Your task to perform on an android device: Open Yahoo.com Image 0: 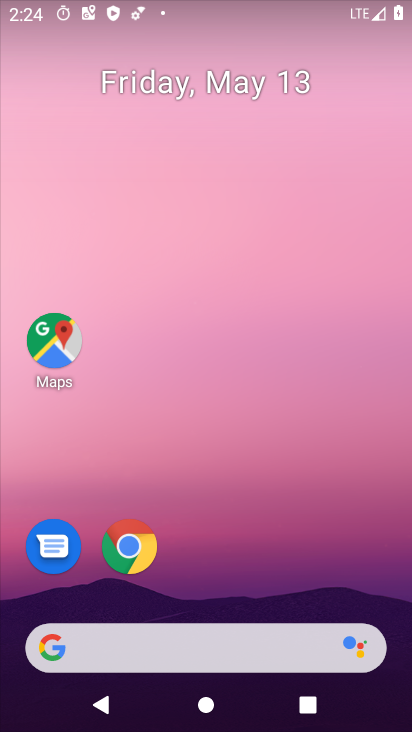
Step 0: drag from (218, 547) to (186, 72)
Your task to perform on an android device: Open Yahoo.com Image 1: 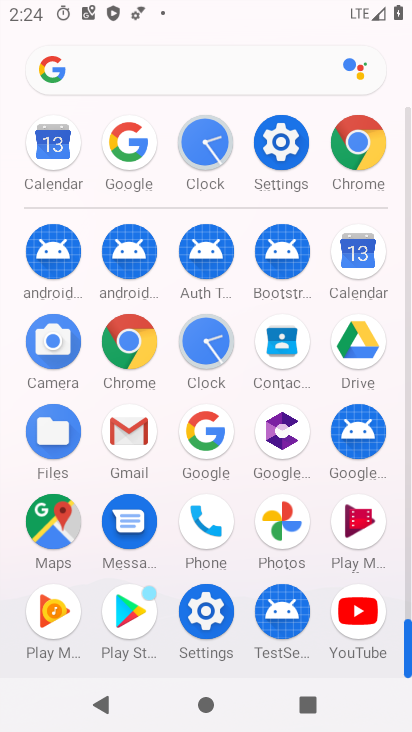
Step 1: click (121, 357)
Your task to perform on an android device: Open Yahoo.com Image 2: 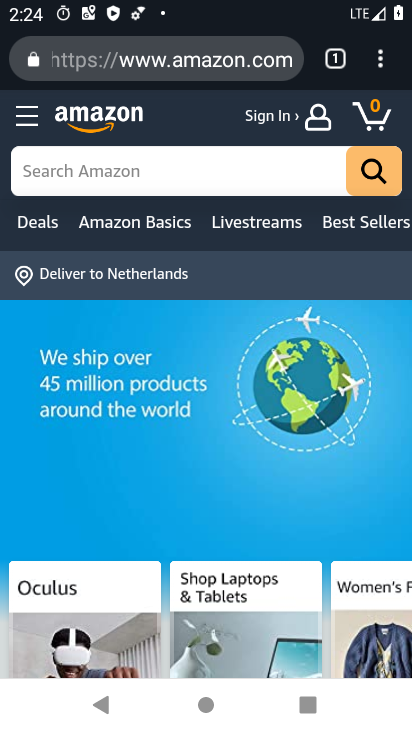
Step 2: click (255, 37)
Your task to perform on an android device: Open Yahoo.com Image 3: 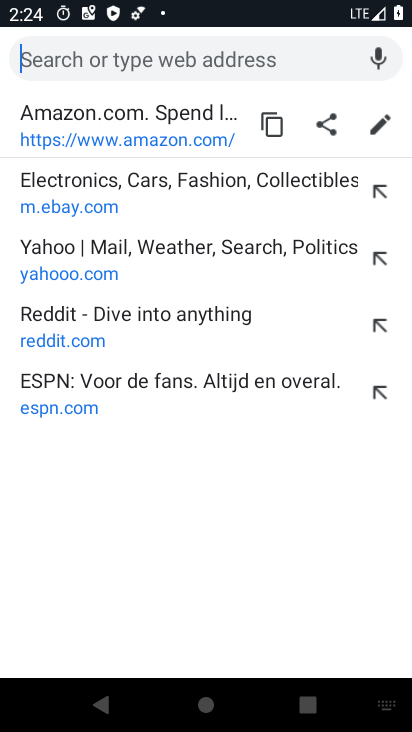
Step 3: click (135, 290)
Your task to perform on an android device: Open Yahoo.com Image 4: 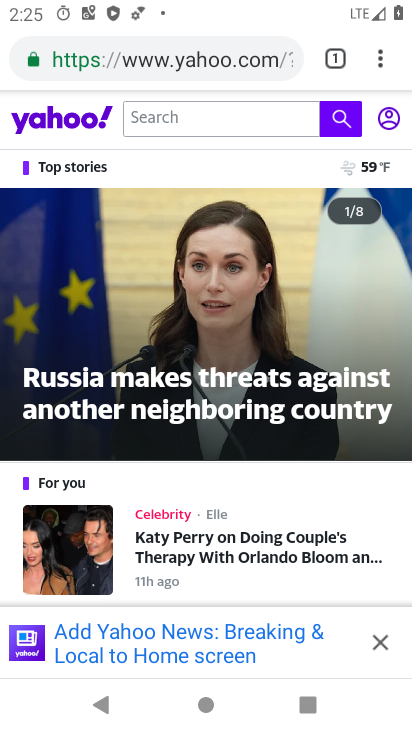
Step 4: task complete